Your task to perform on an android device: Go to settings Image 0: 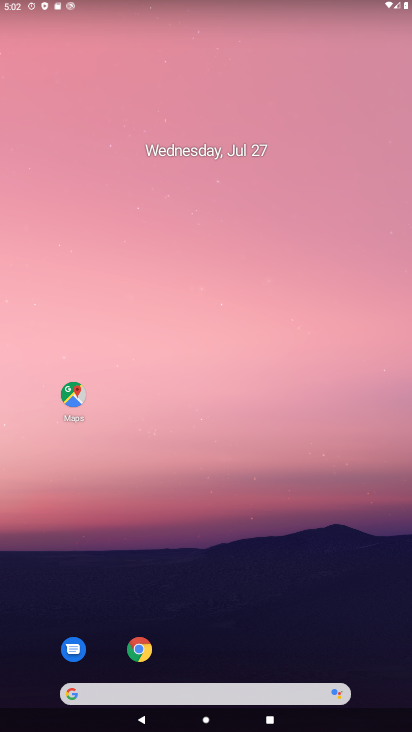
Step 0: drag from (167, 700) to (228, 120)
Your task to perform on an android device: Go to settings Image 1: 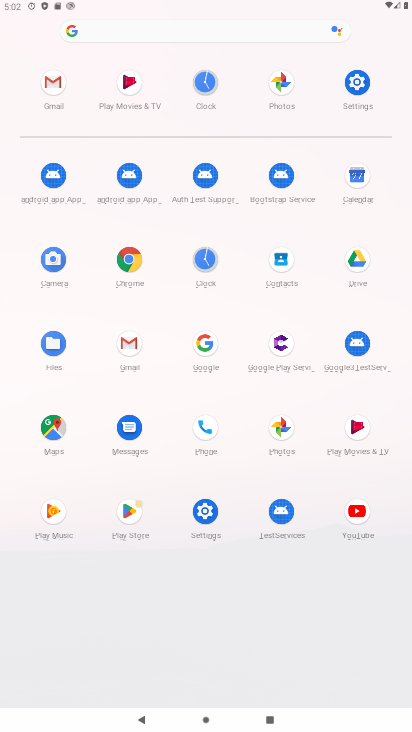
Step 1: click (356, 82)
Your task to perform on an android device: Go to settings Image 2: 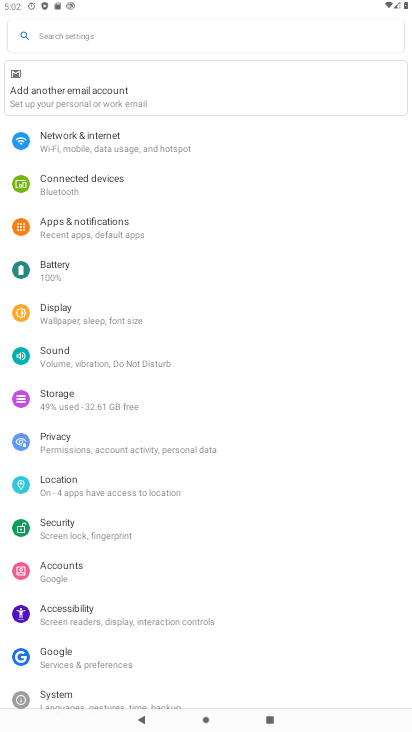
Step 2: task complete